Your task to perform on an android device: find photos in the google photos app Image 0: 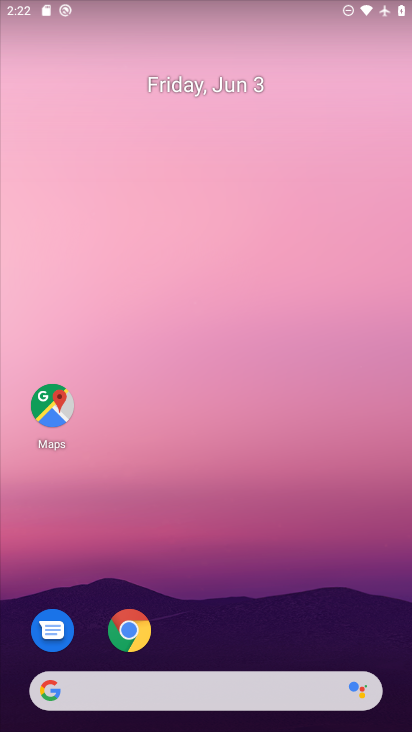
Step 0: drag from (239, 727) to (239, 220)
Your task to perform on an android device: find photos in the google photos app Image 1: 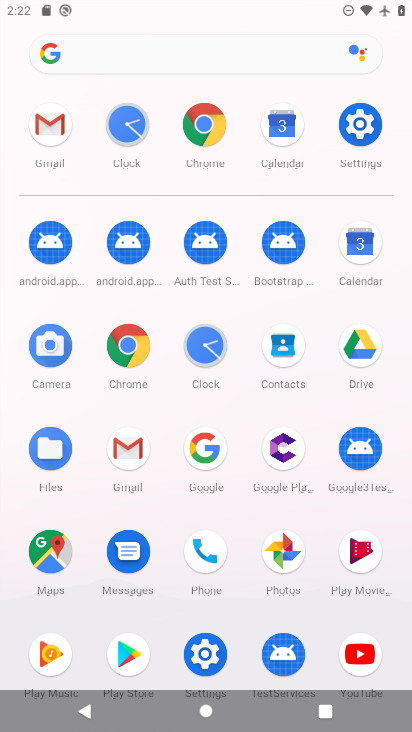
Step 1: click (273, 542)
Your task to perform on an android device: find photos in the google photos app Image 2: 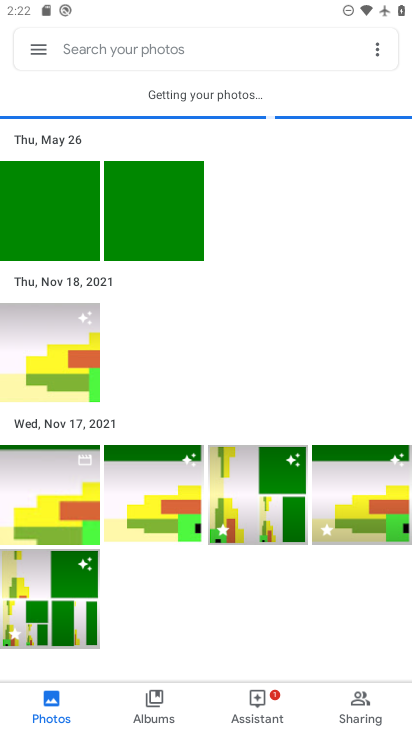
Step 2: click (61, 362)
Your task to perform on an android device: find photos in the google photos app Image 3: 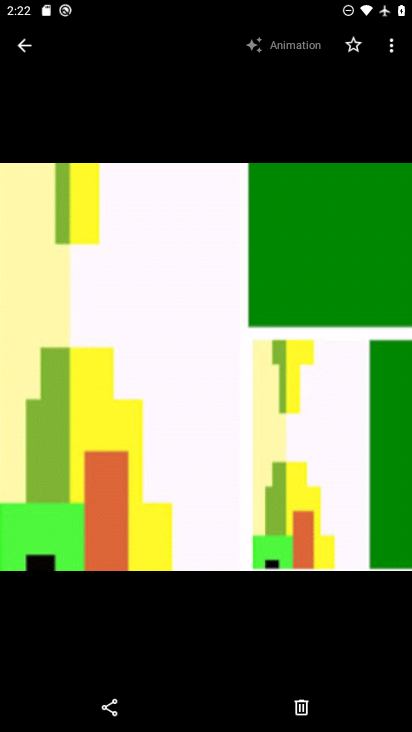
Step 3: task complete